Your task to perform on an android device: Open privacy settings Image 0: 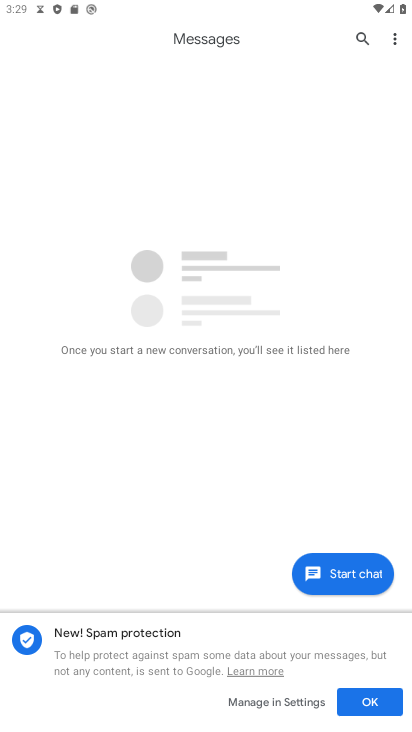
Step 0: press back button
Your task to perform on an android device: Open privacy settings Image 1: 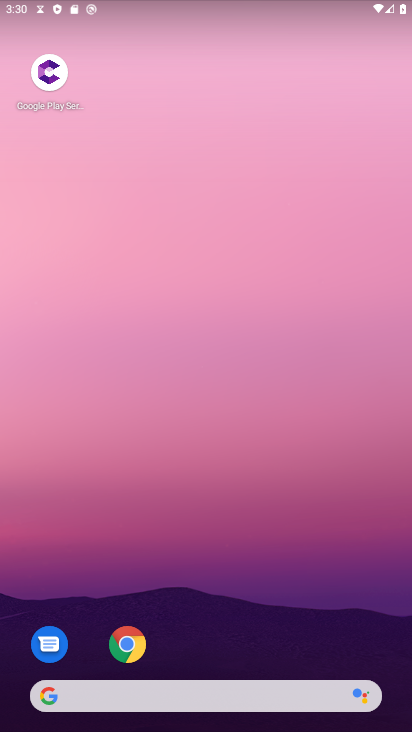
Step 1: drag from (247, 621) to (196, 81)
Your task to perform on an android device: Open privacy settings Image 2: 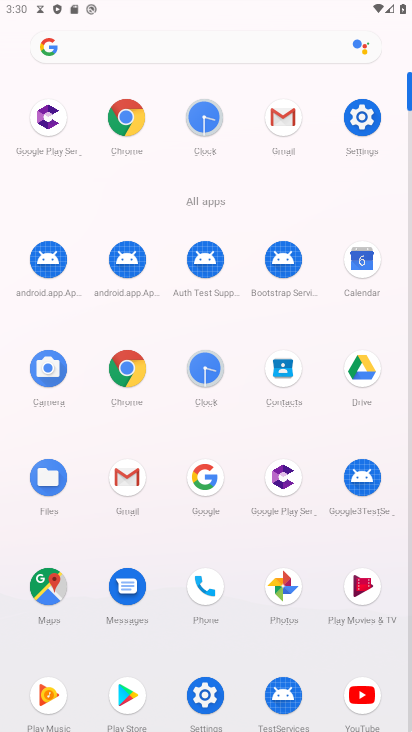
Step 2: click (361, 115)
Your task to perform on an android device: Open privacy settings Image 3: 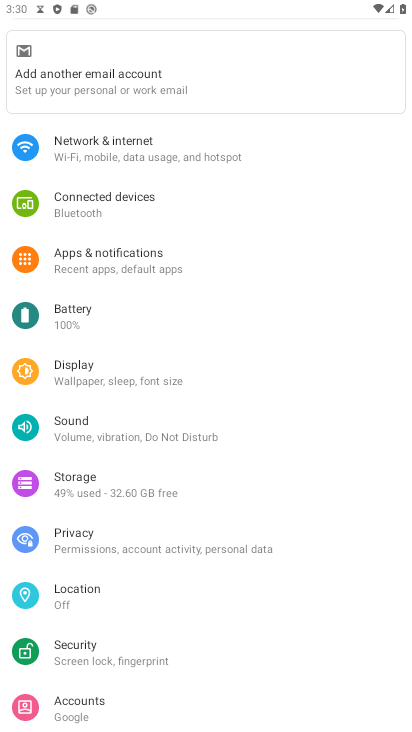
Step 3: click (95, 539)
Your task to perform on an android device: Open privacy settings Image 4: 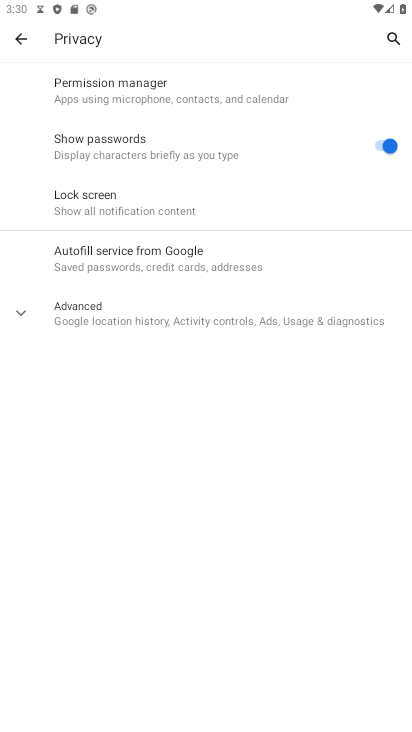
Step 4: task complete